Your task to perform on an android device: turn on sleep mode Image 0: 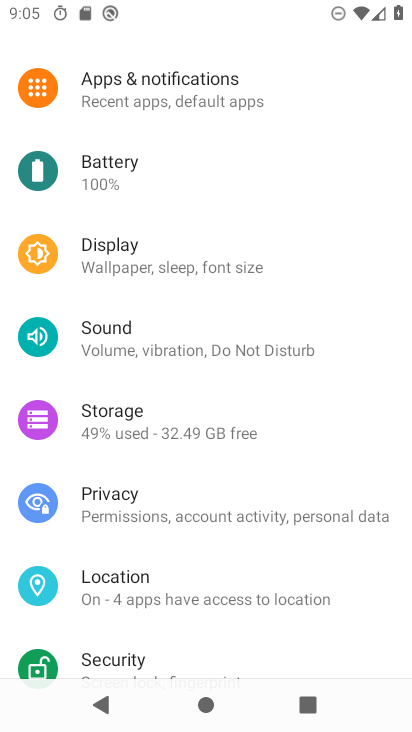
Step 0: click (212, 252)
Your task to perform on an android device: turn on sleep mode Image 1: 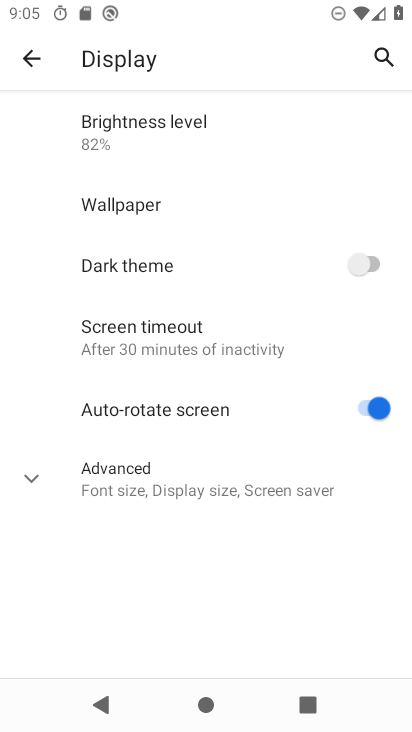
Step 1: click (26, 479)
Your task to perform on an android device: turn on sleep mode Image 2: 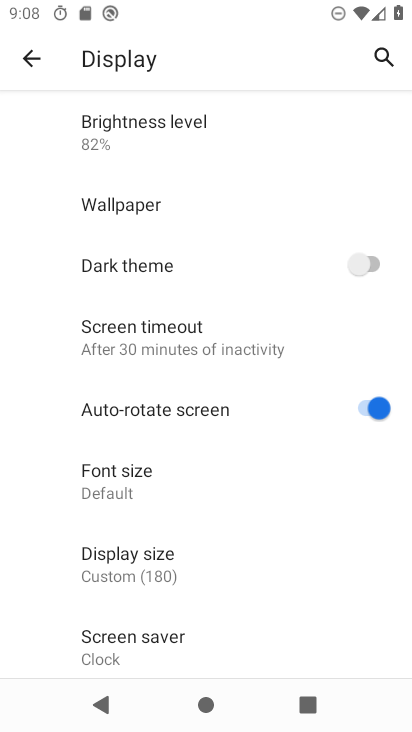
Step 2: task complete